Your task to perform on an android device: turn pop-ups off in chrome Image 0: 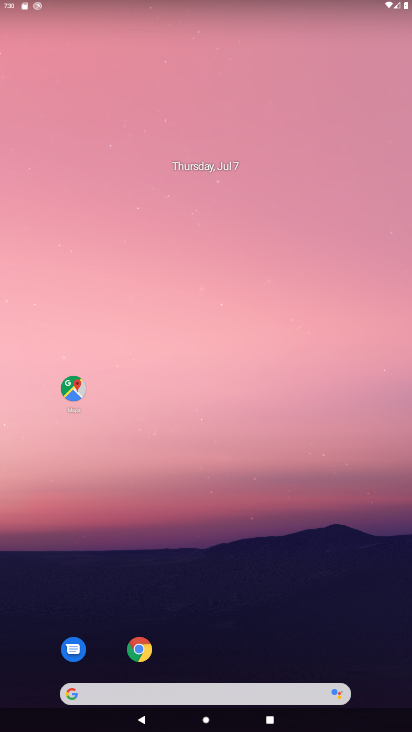
Step 0: drag from (212, 649) to (228, 68)
Your task to perform on an android device: turn pop-ups off in chrome Image 1: 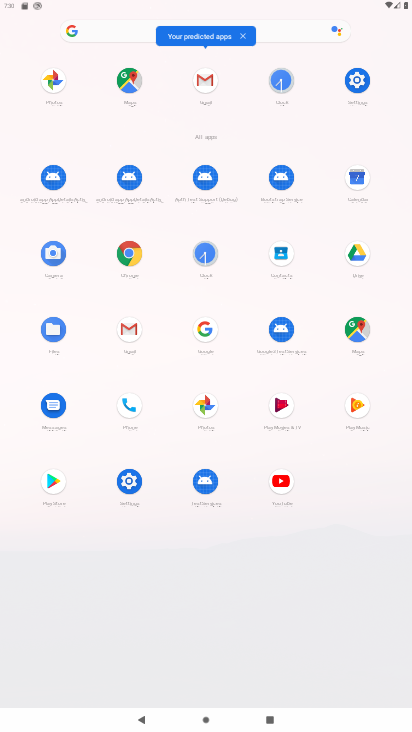
Step 1: click (123, 248)
Your task to perform on an android device: turn pop-ups off in chrome Image 2: 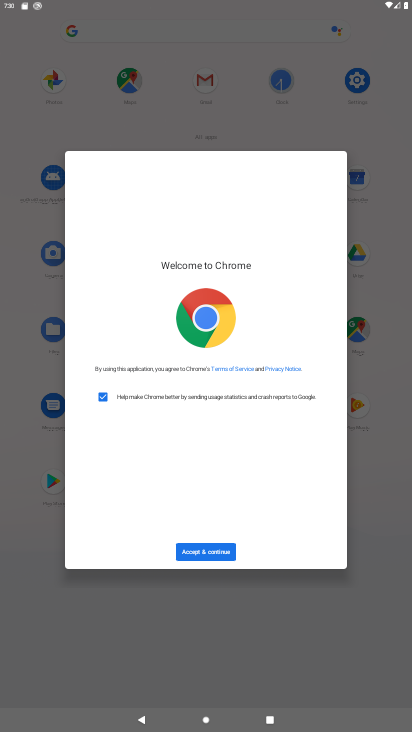
Step 2: click (204, 555)
Your task to perform on an android device: turn pop-ups off in chrome Image 3: 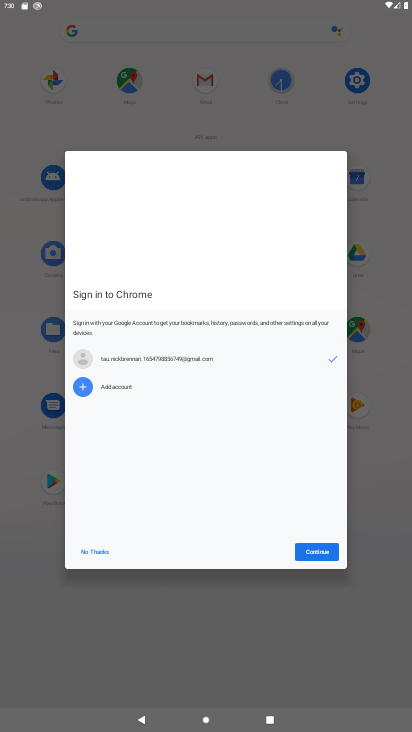
Step 3: click (329, 551)
Your task to perform on an android device: turn pop-ups off in chrome Image 4: 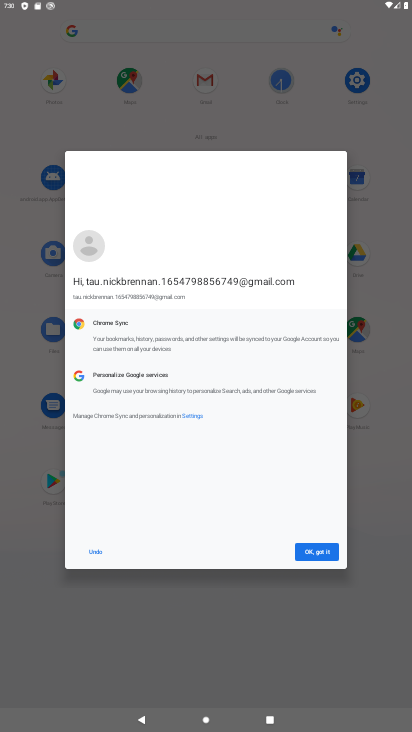
Step 4: click (329, 551)
Your task to perform on an android device: turn pop-ups off in chrome Image 5: 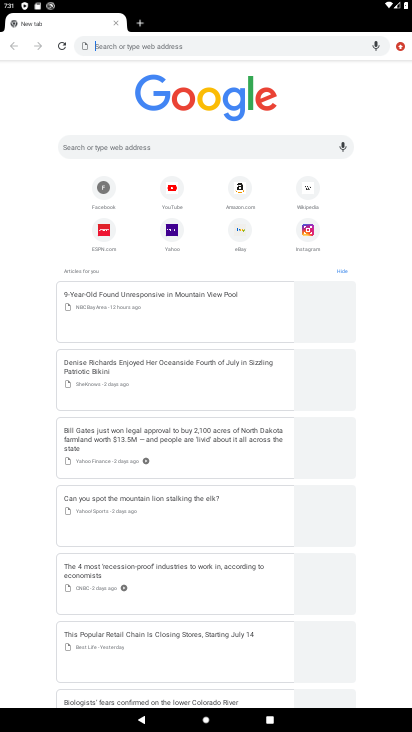
Step 5: click (402, 47)
Your task to perform on an android device: turn pop-ups off in chrome Image 6: 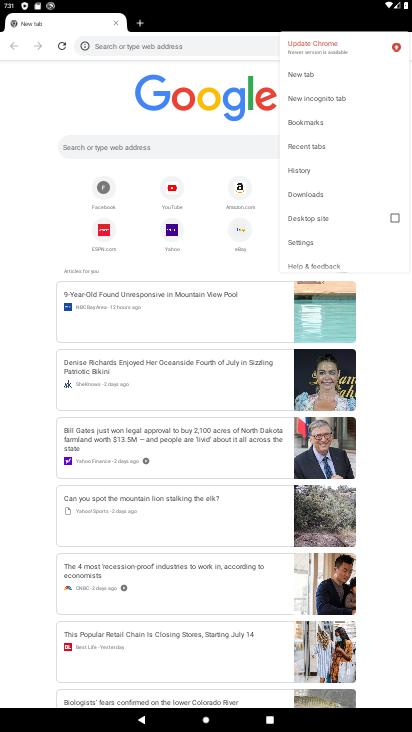
Step 6: click (304, 239)
Your task to perform on an android device: turn pop-ups off in chrome Image 7: 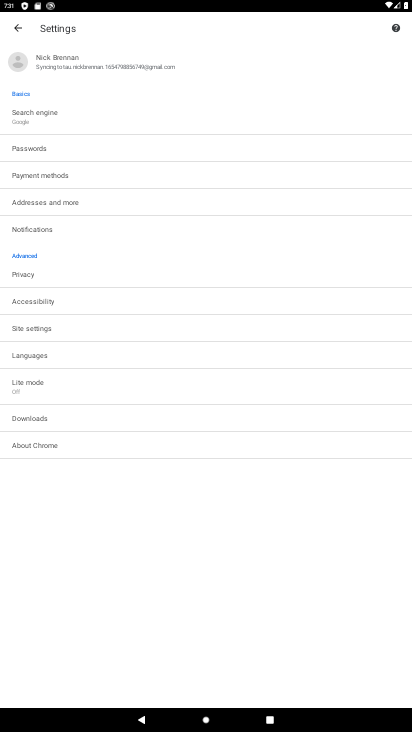
Step 7: click (54, 327)
Your task to perform on an android device: turn pop-ups off in chrome Image 8: 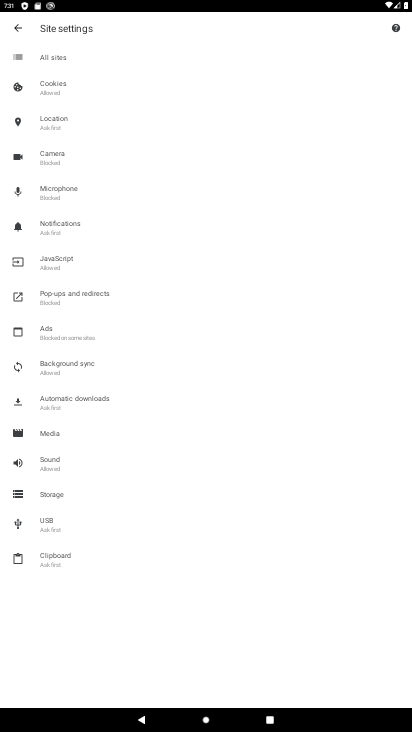
Step 8: click (91, 303)
Your task to perform on an android device: turn pop-ups off in chrome Image 9: 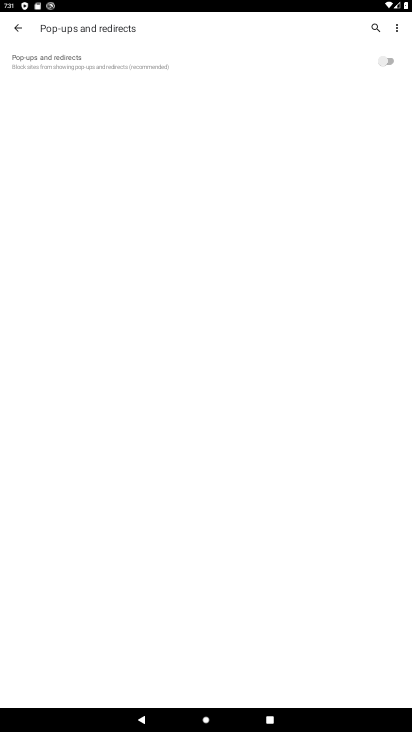
Step 9: task complete